Your task to perform on an android device: Is it going to rain tomorrow? Image 0: 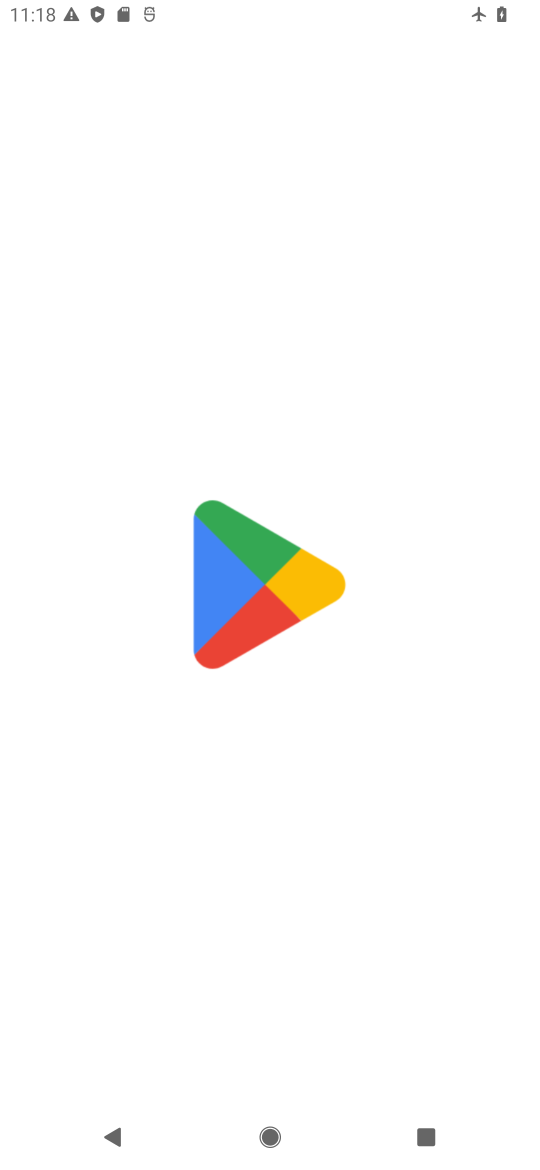
Step 0: press home button
Your task to perform on an android device: Is it going to rain tomorrow? Image 1: 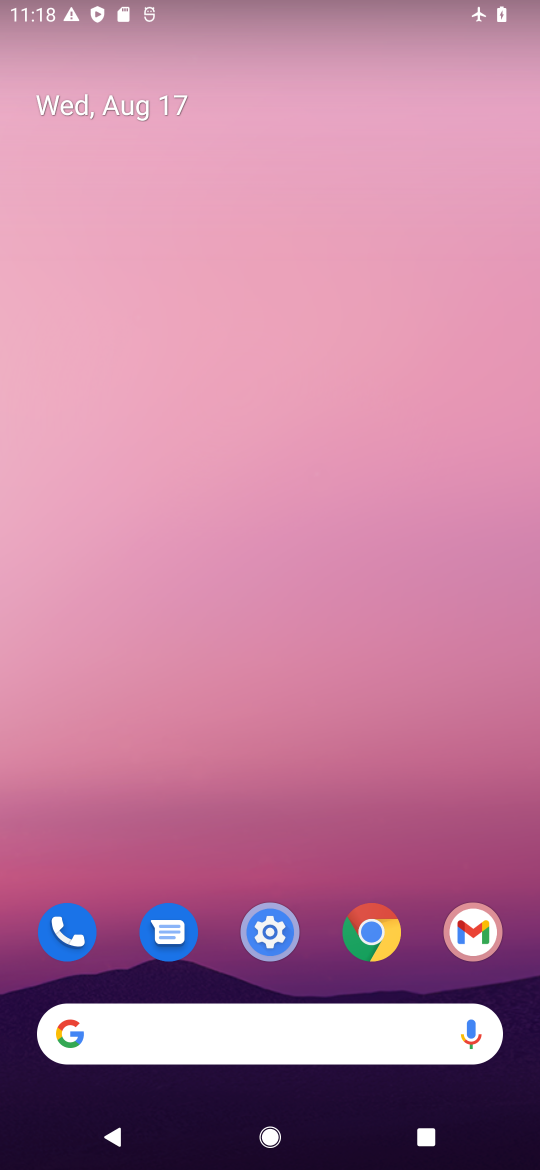
Step 1: drag from (284, 866) to (295, 35)
Your task to perform on an android device: Is it going to rain tomorrow? Image 2: 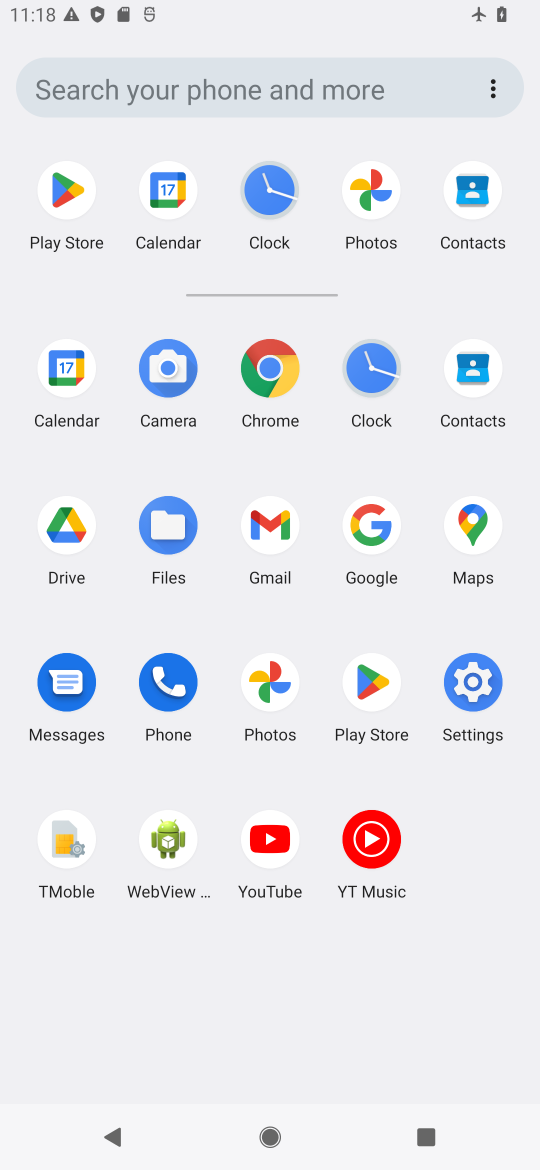
Step 2: click (370, 566)
Your task to perform on an android device: Is it going to rain tomorrow? Image 3: 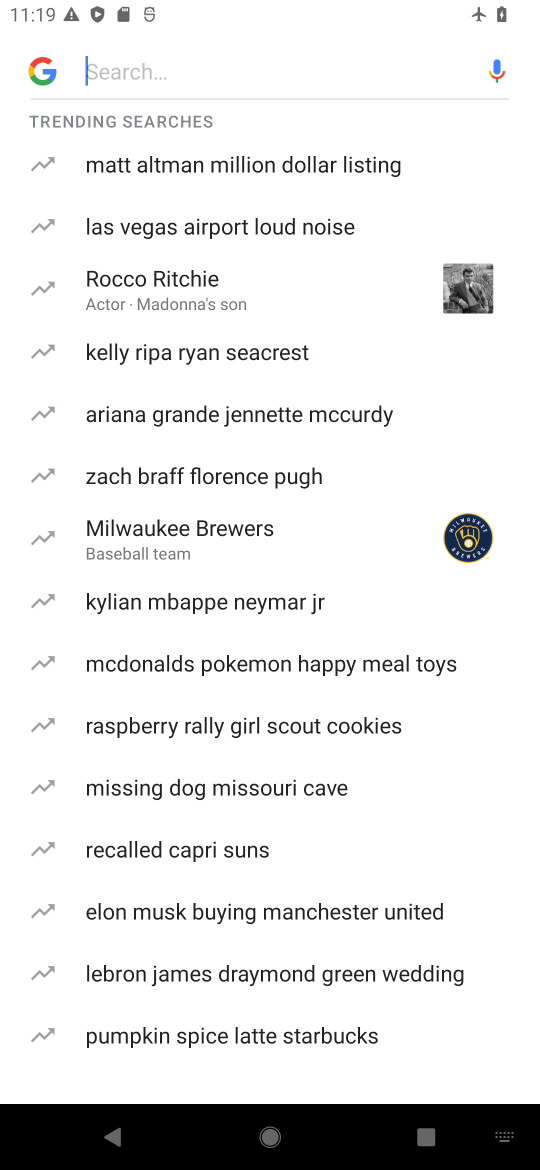
Step 3: type "weather"
Your task to perform on an android device: Is it going to rain tomorrow? Image 4: 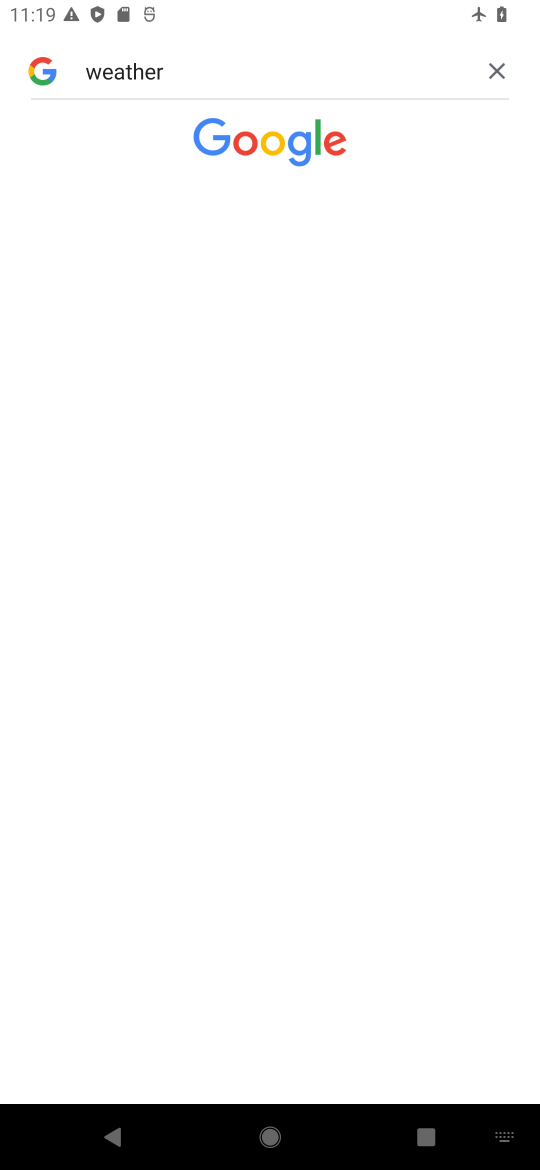
Step 4: task complete